Your task to perform on an android device: Go to Google Image 0: 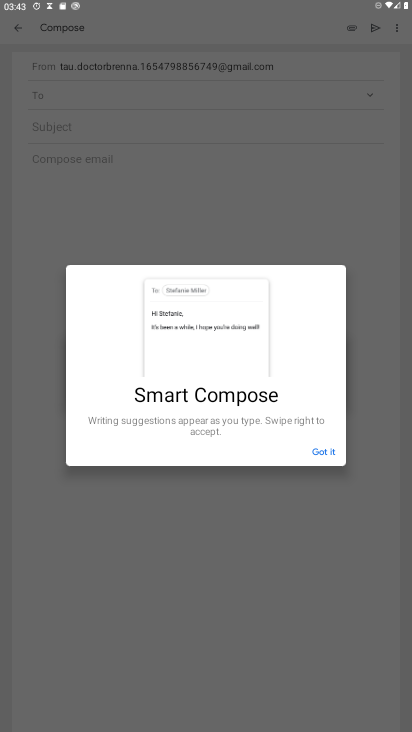
Step 0: press home button
Your task to perform on an android device: Go to Google Image 1: 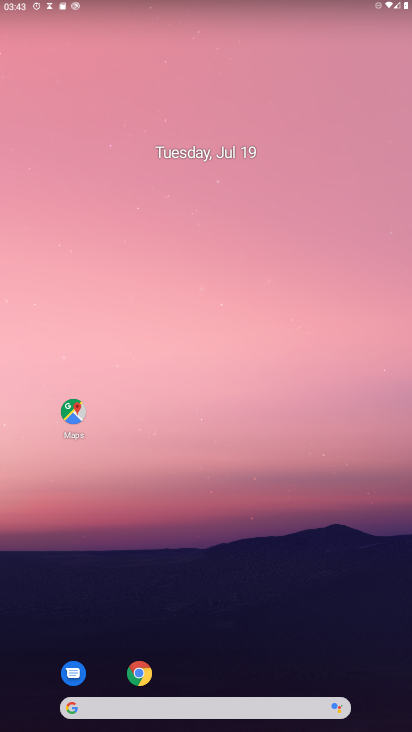
Step 1: click (69, 702)
Your task to perform on an android device: Go to Google Image 2: 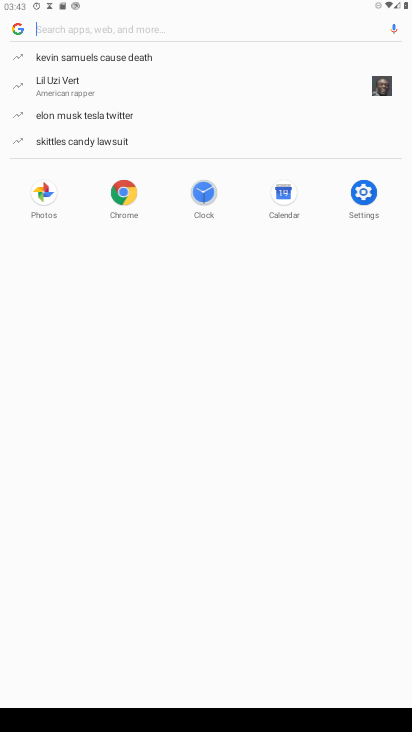
Step 2: click (18, 22)
Your task to perform on an android device: Go to Google Image 3: 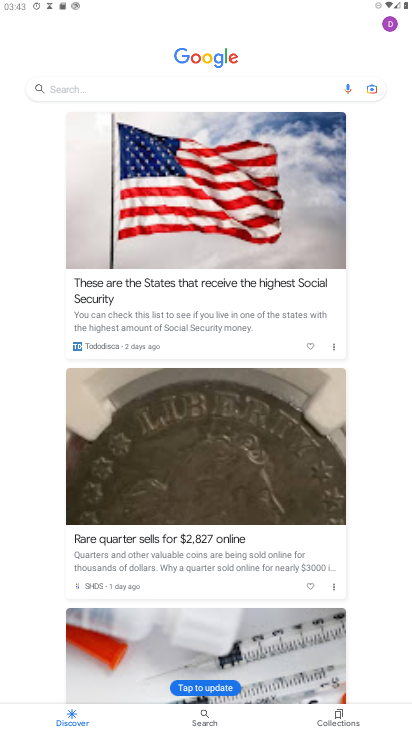
Step 3: task complete